Your task to perform on an android device: turn off improve location accuracy Image 0: 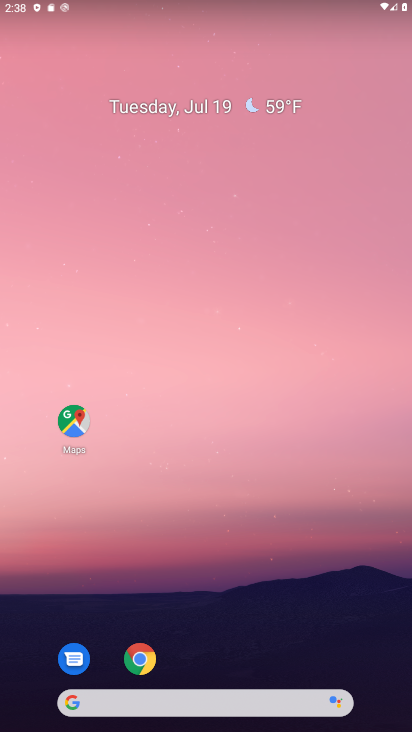
Step 0: drag from (225, 560) to (288, 96)
Your task to perform on an android device: turn off improve location accuracy Image 1: 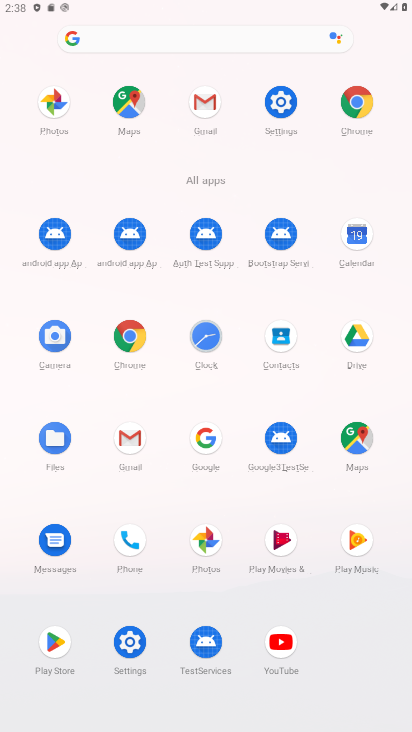
Step 1: click (129, 638)
Your task to perform on an android device: turn off improve location accuracy Image 2: 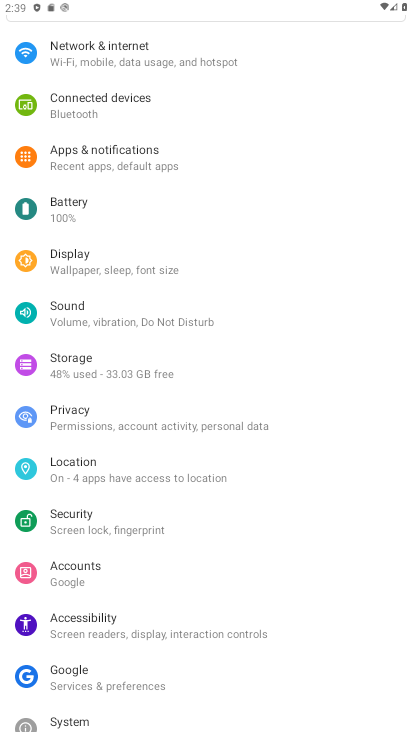
Step 2: click (83, 470)
Your task to perform on an android device: turn off improve location accuracy Image 3: 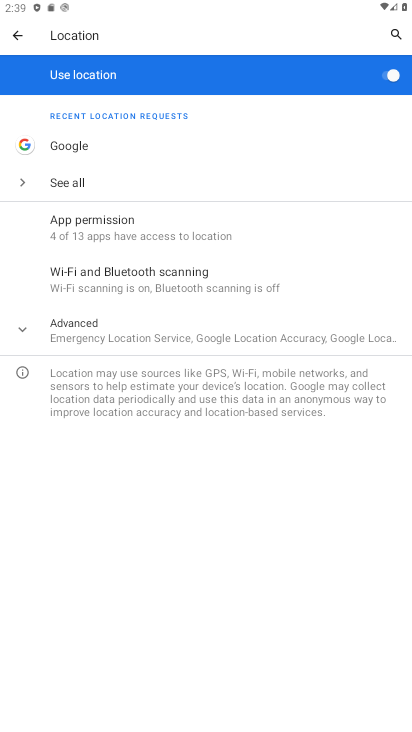
Step 3: click (112, 339)
Your task to perform on an android device: turn off improve location accuracy Image 4: 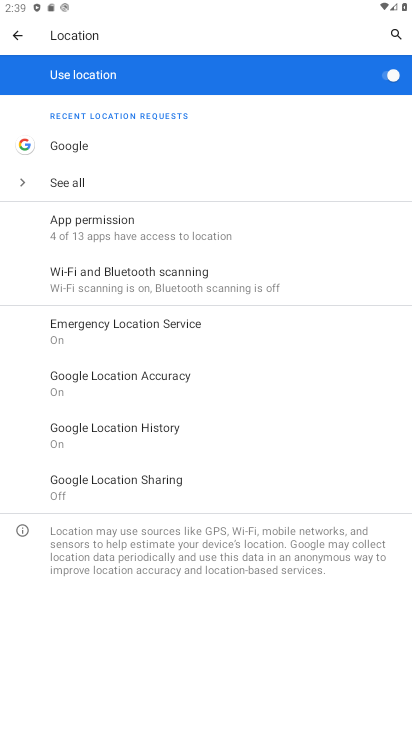
Step 4: click (123, 376)
Your task to perform on an android device: turn off improve location accuracy Image 5: 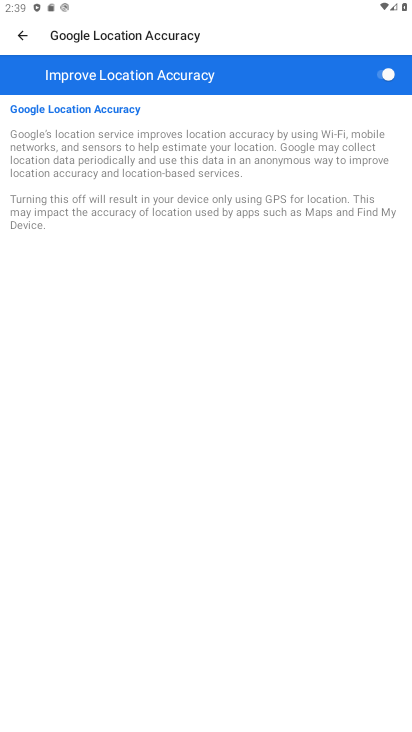
Step 5: click (382, 74)
Your task to perform on an android device: turn off improve location accuracy Image 6: 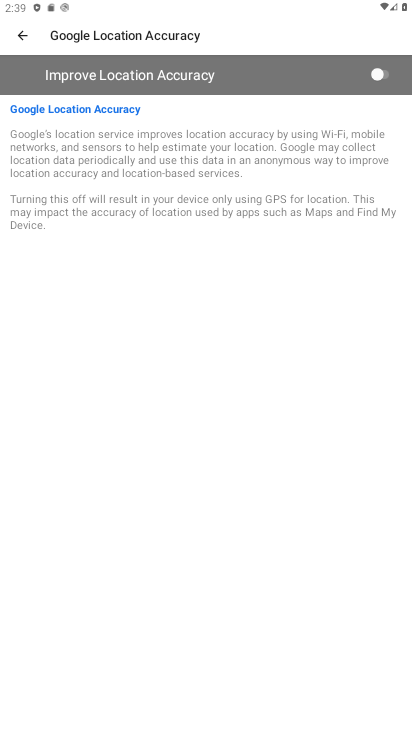
Step 6: task complete